Your task to perform on an android device: What is the recent news? Image 0: 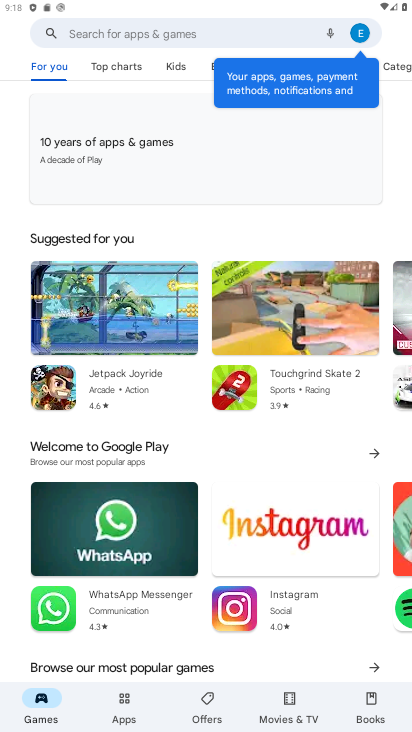
Step 0: press home button
Your task to perform on an android device: What is the recent news? Image 1: 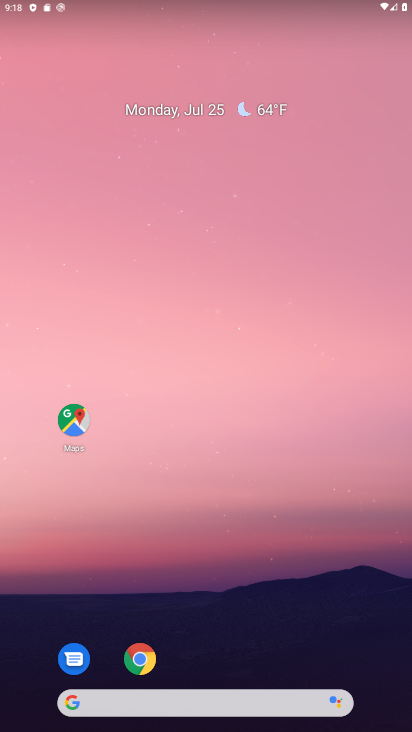
Step 1: task complete